Your task to perform on an android device: open chrome privacy settings Image 0: 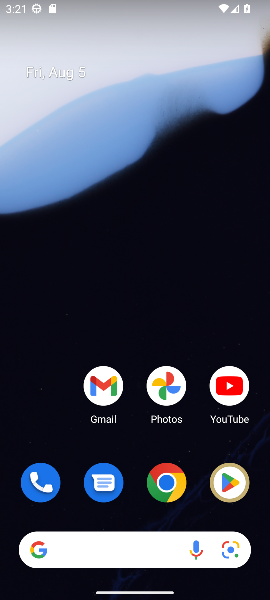
Step 0: click (165, 480)
Your task to perform on an android device: open chrome privacy settings Image 1: 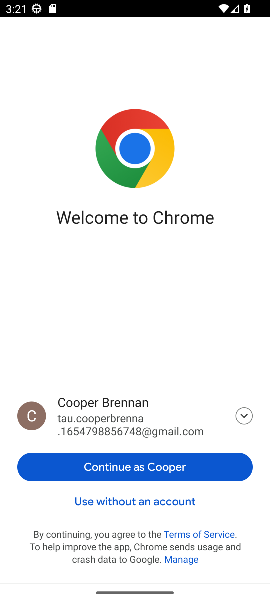
Step 1: click (140, 465)
Your task to perform on an android device: open chrome privacy settings Image 2: 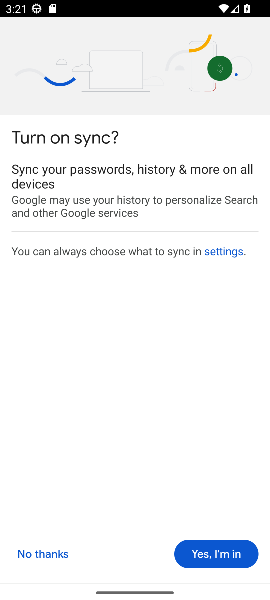
Step 2: click (221, 551)
Your task to perform on an android device: open chrome privacy settings Image 3: 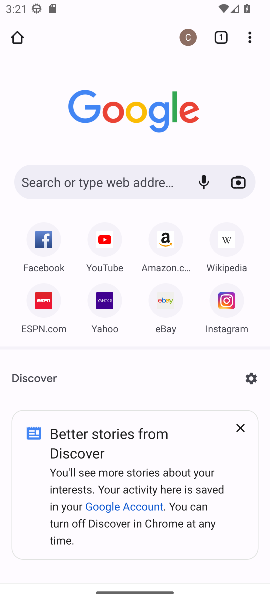
Step 3: click (248, 34)
Your task to perform on an android device: open chrome privacy settings Image 4: 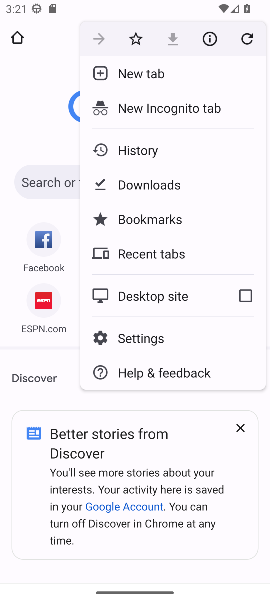
Step 4: click (172, 333)
Your task to perform on an android device: open chrome privacy settings Image 5: 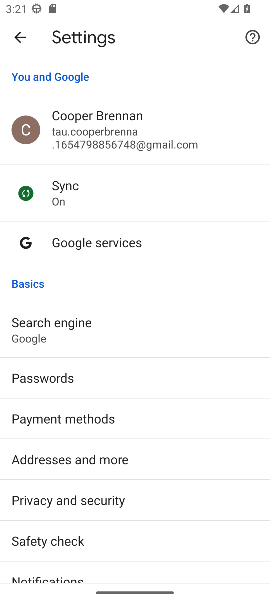
Step 5: click (136, 500)
Your task to perform on an android device: open chrome privacy settings Image 6: 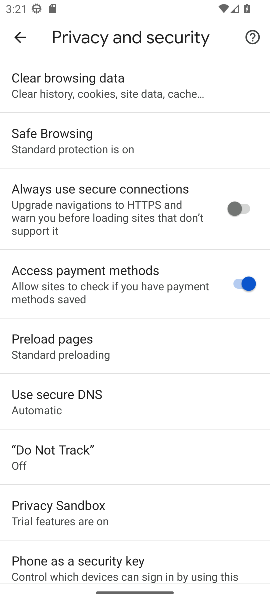
Step 6: task complete